Your task to perform on an android device: Add apple airpods to the cart on bestbuy.com Image 0: 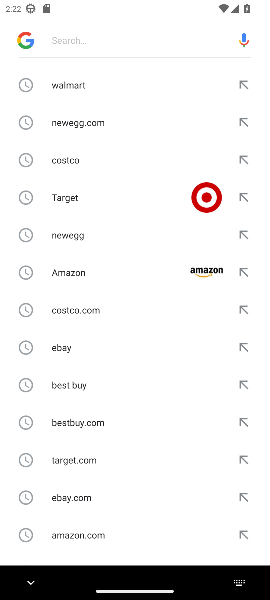
Step 0: click (65, 419)
Your task to perform on an android device: Add apple airpods to the cart on bestbuy.com Image 1: 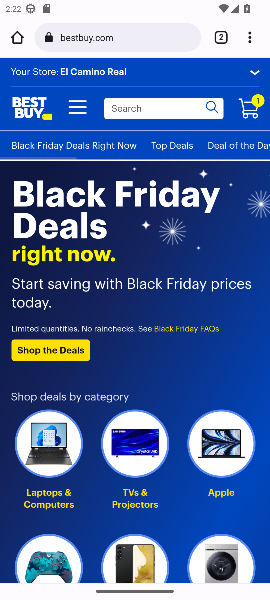
Step 1: click (130, 109)
Your task to perform on an android device: Add apple airpods to the cart on bestbuy.com Image 2: 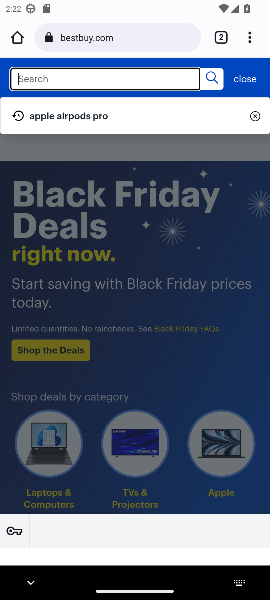
Step 2: click (130, 109)
Your task to perform on an android device: Add apple airpods to the cart on bestbuy.com Image 3: 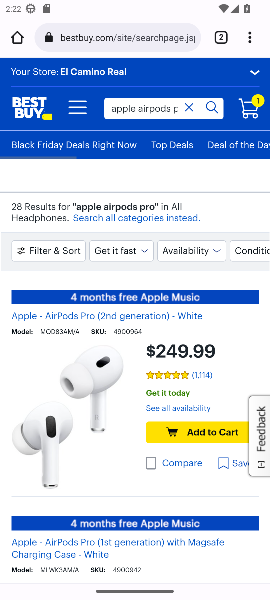
Step 3: click (193, 433)
Your task to perform on an android device: Add apple airpods to the cart on bestbuy.com Image 4: 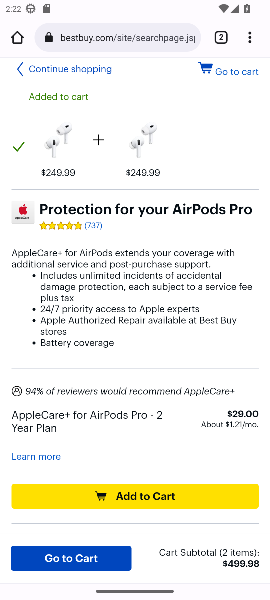
Step 4: task complete